Your task to perform on an android device: Search for Mexican restaurants on Maps Image 0: 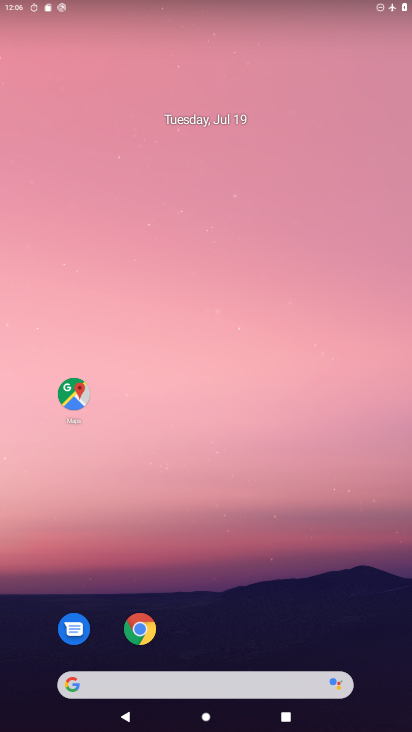
Step 0: drag from (329, 619) to (235, 193)
Your task to perform on an android device: Search for Mexican restaurants on Maps Image 1: 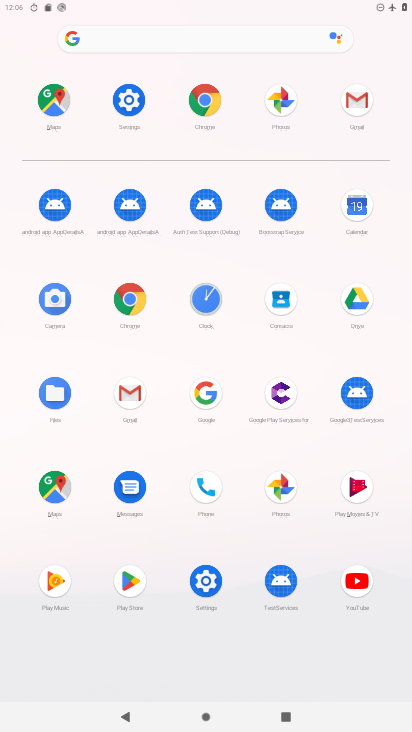
Step 1: click (53, 101)
Your task to perform on an android device: Search for Mexican restaurants on Maps Image 2: 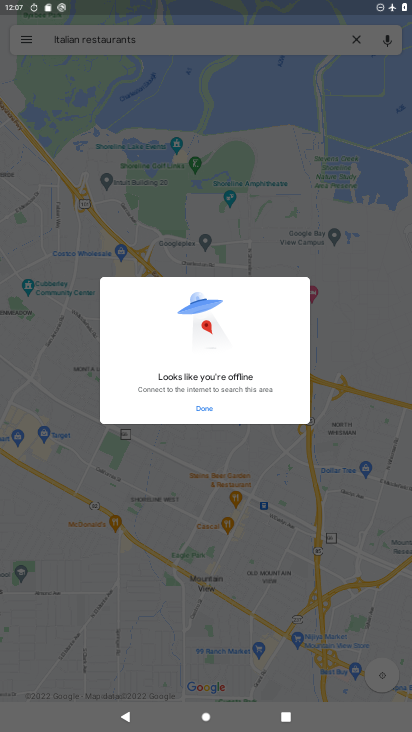
Step 2: click (212, 414)
Your task to perform on an android device: Search for Mexican restaurants on Maps Image 3: 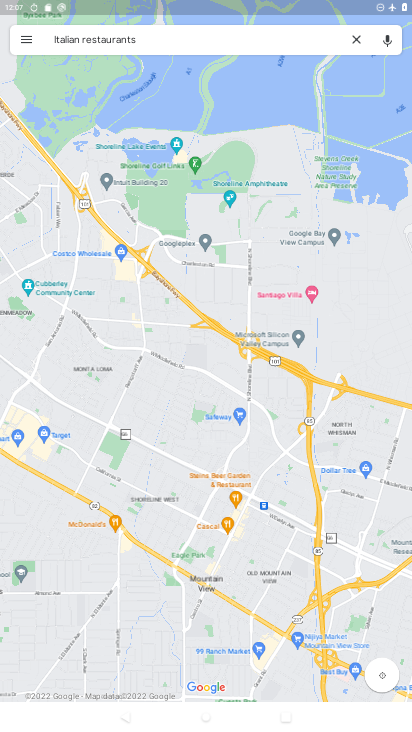
Step 3: click (205, 31)
Your task to perform on an android device: Search for Mexican restaurants on Maps Image 4: 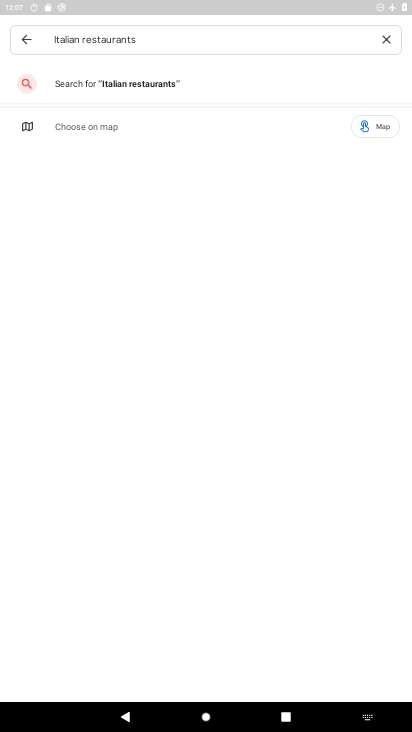
Step 4: click (387, 37)
Your task to perform on an android device: Search for Mexican restaurants on Maps Image 5: 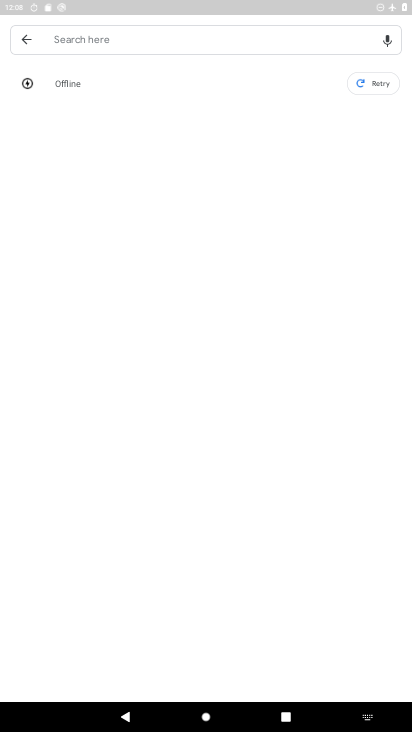
Step 5: type "Mexican restaurants"
Your task to perform on an android device: Search for Mexican restaurants on Maps Image 6: 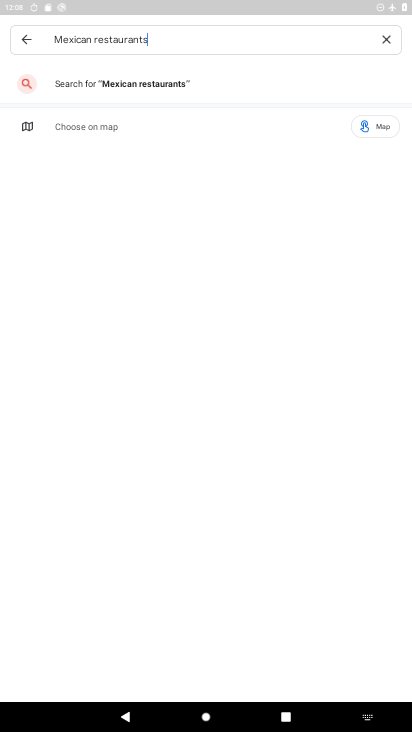
Step 6: press enter
Your task to perform on an android device: Search for Mexican restaurants on Maps Image 7: 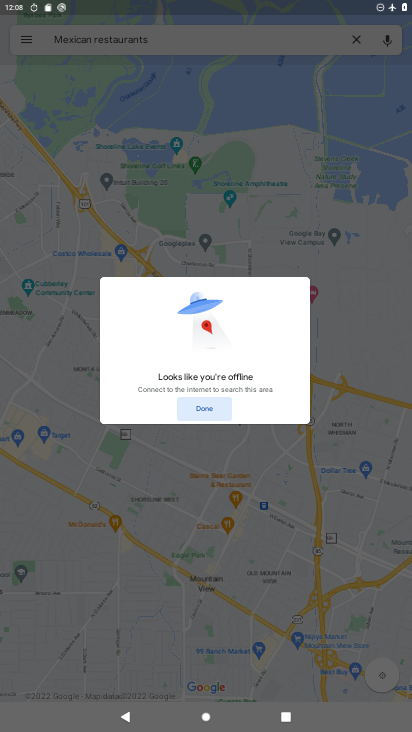
Step 7: task complete